Your task to perform on an android device: Do I have any events this weekend? Image 0: 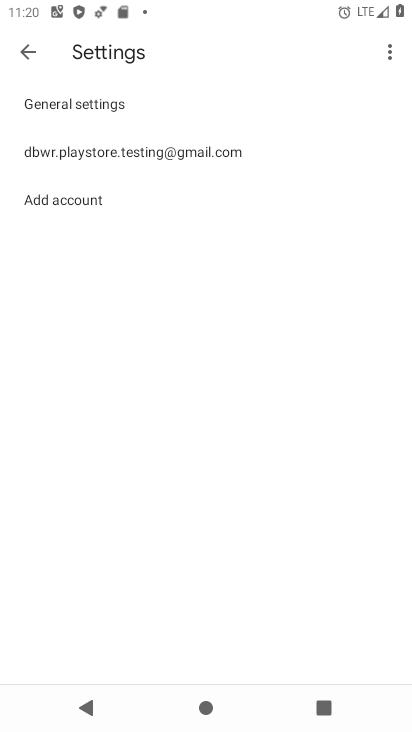
Step 0: press home button
Your task to perform on an android device: Do I have any events this weekend? Image 1: 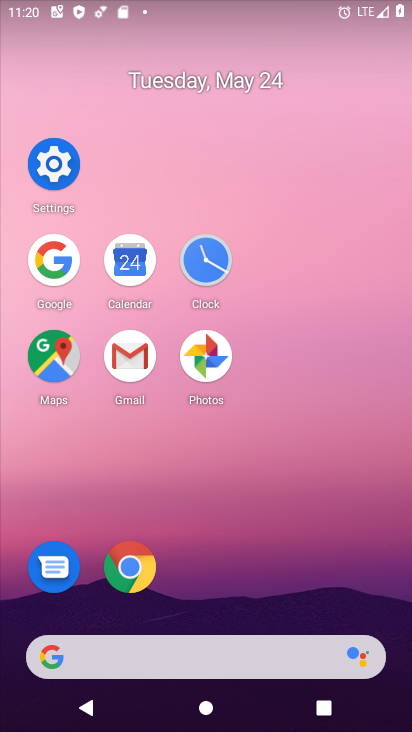
Step 1: click (142, 263)
Your task to perform on an android device: Do I have any events this weekend? Image 2: 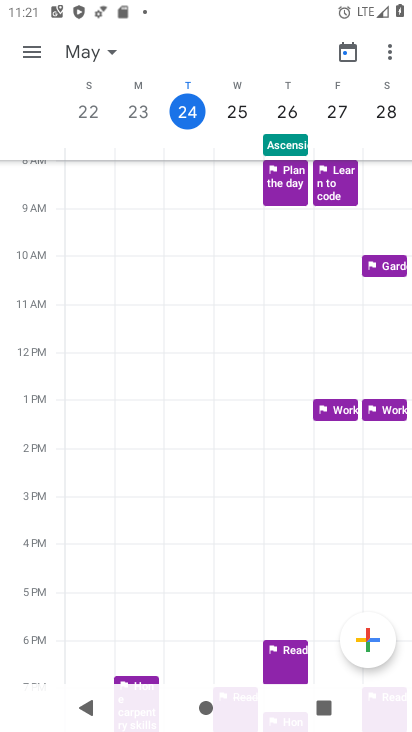
Step 2: task complete